Your task to perform on an android device: Open calendar and show me the fourth week of next month Image 0: 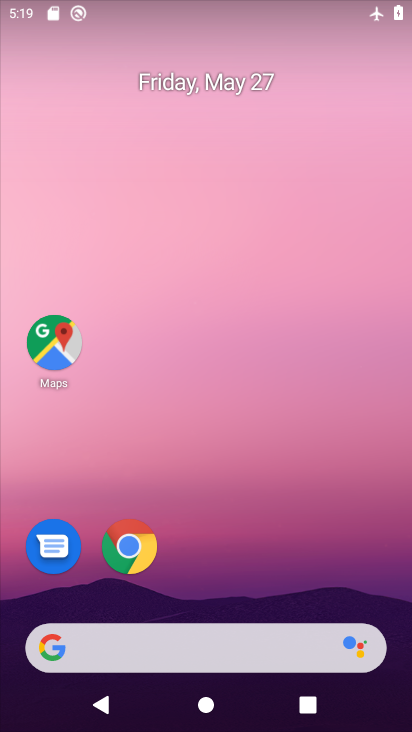
Step 0: click (204, 81)
Your task to perform on an android device: Open calendar and show me the fourth week of next month Image 1: 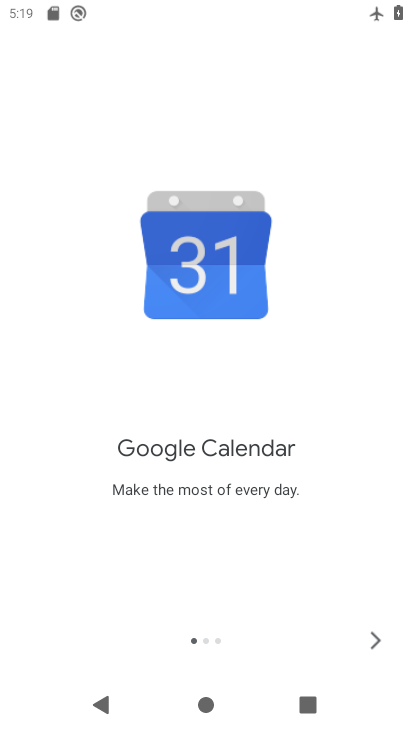
Step 1: click (370, 633)
Your task to perform on an android device: Open calendar and show me the fourth week of next month Image 2: 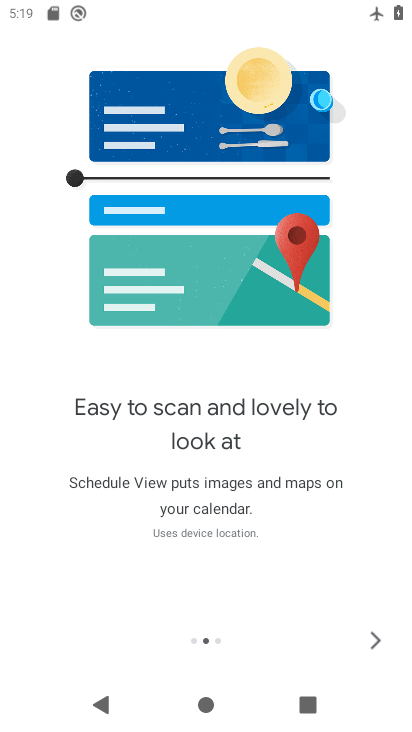
Step 2: click (370, 633)
Your task to perform on an android device: Open calendar and show me the fourth week of next month Image 3: 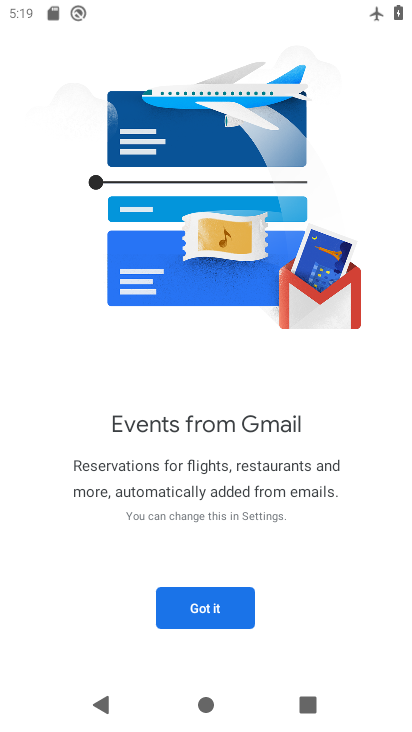
Step 3: click (222, 592)
Your task to perform on an android device: Open calendar and show me the fourth week of next month Image 4: 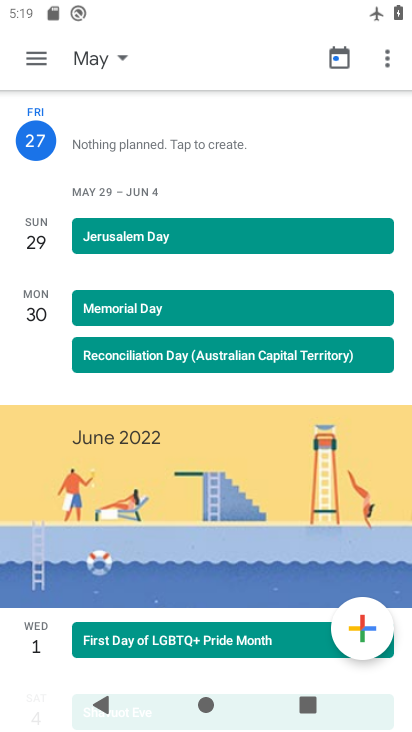
Step 4: click (33, 52)
Your task to perform on an android device: Open calendar and show me the fourth week of next month Image 5: 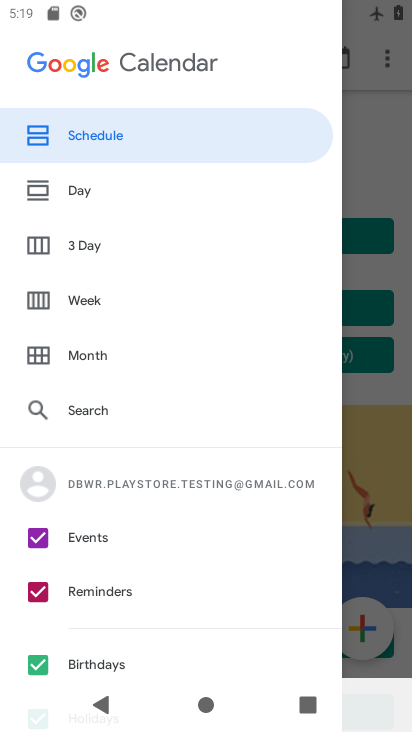
Step 5: click (86, 304)
Your task to perform on an android device: Open calendar and show me the fourth week of next month Image 6: 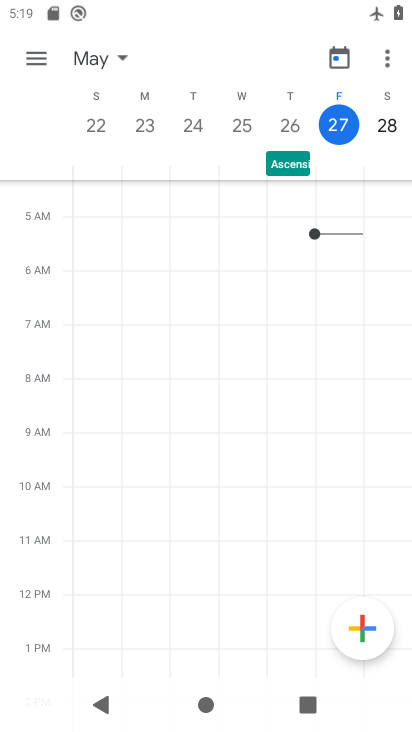
Step 6: click (125, 55)
Your task to perform on an android device: Open calendar and show me the fourth week of next month Image 7: 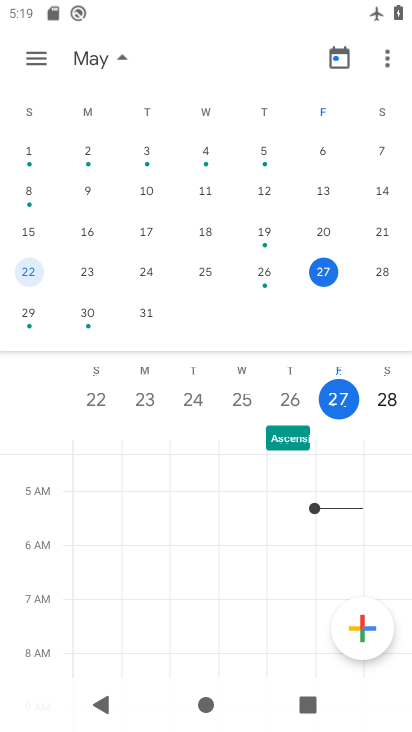
Step 7: drag from (318, 304) to (0, 291)
Your task to perform on an android device: Open calendar and show me the fourth week of next month Image 8: 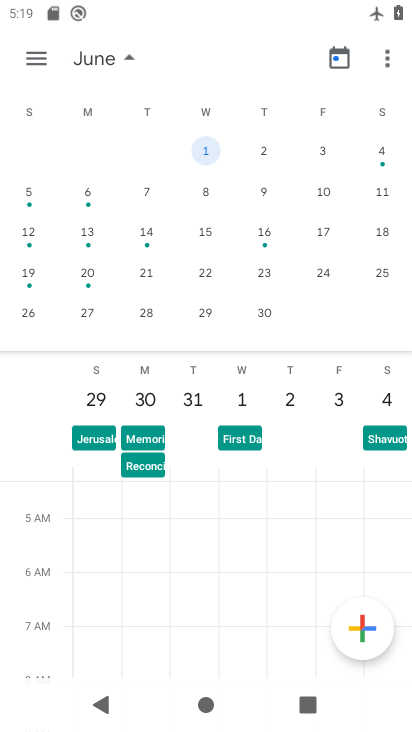
Step 8: click (207, 275)
Your task to perform on an android device: Open calendar and show me the fourth week of next month Image 9: 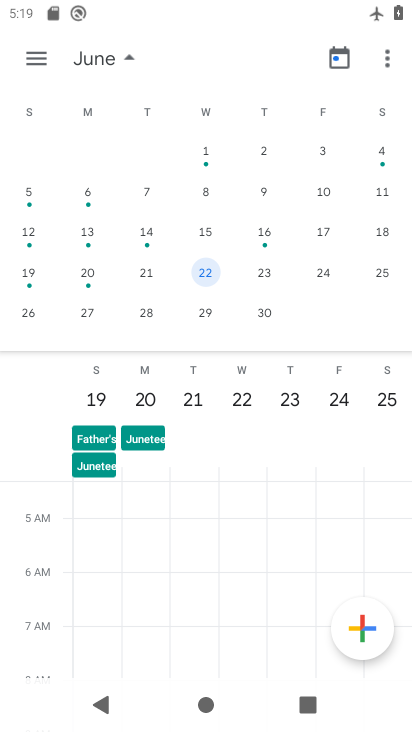
Step 9: task complete